Your task to perform on an android device: turn on location history Image 0: 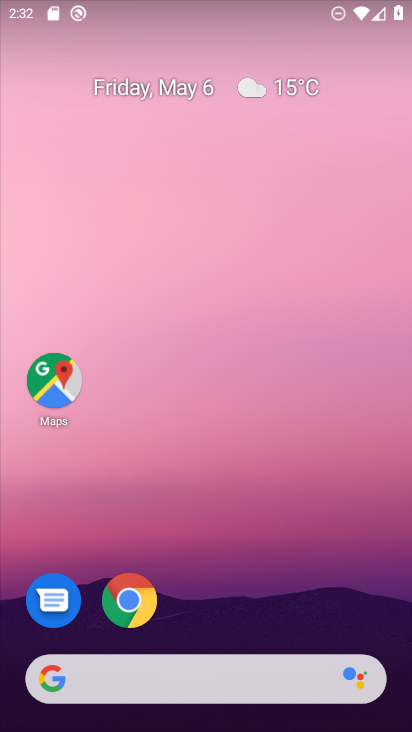
Step 0: drag from (328, 600) to (265, 40)
Your task to perform on an android device: turn on location history Image 1: 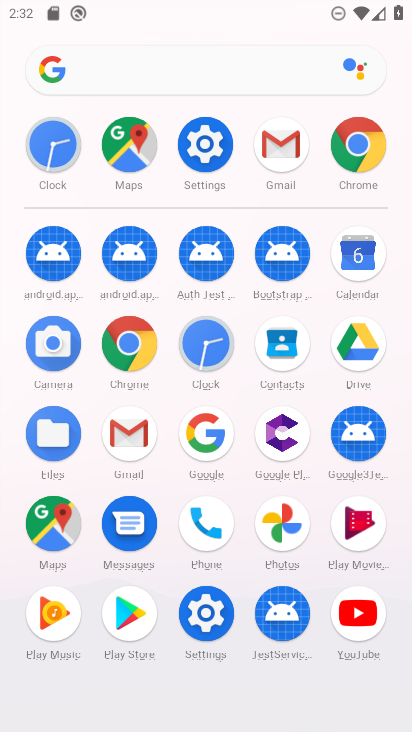
Step 1: click (214, 635)
Your task to perform on an android device: turn on location history Image 2: 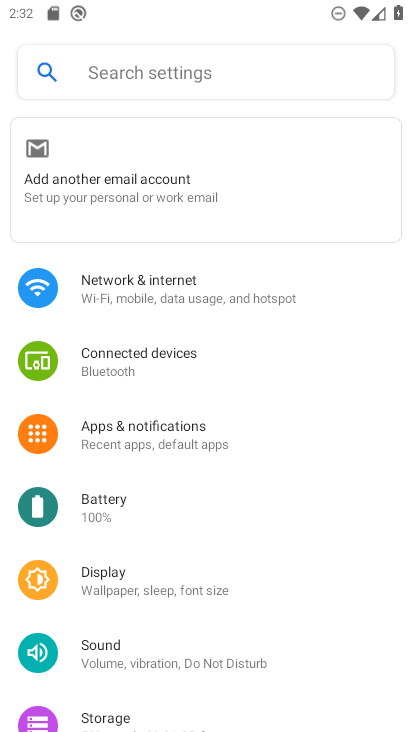
Step 2: drag from (155, 622) to (191, 89)
Your task to perform on an android device: turn on location history Image 3: 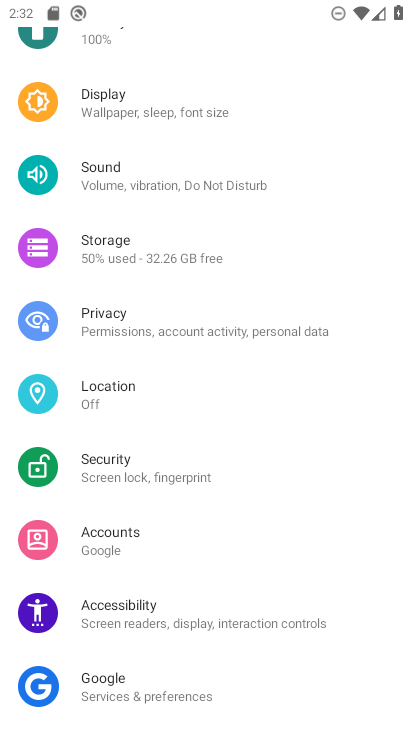
Step 3: click (120, 399)
Your task to perform on an android device: turn on location history Image 4: 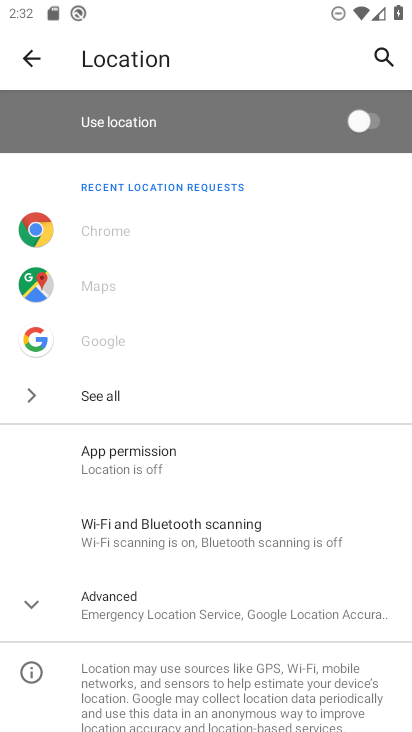
Step 4: click (123, 599)
Your task to perform on an android device: turn on location history Image 5: 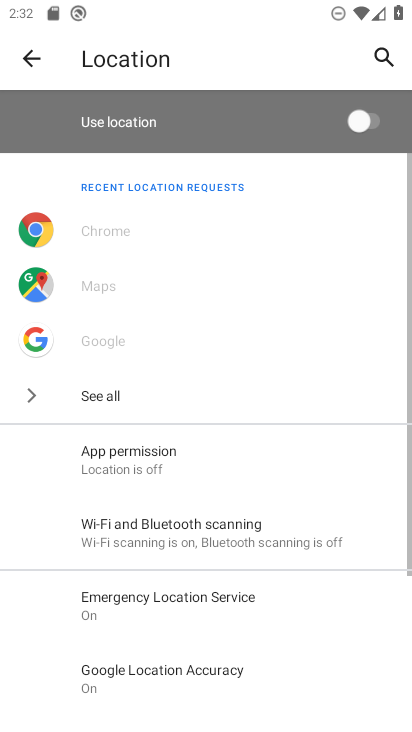
Step 5: drag from (123, 599) to (166, 206)
Your task to perform on an android device: turn on location history Image 6: 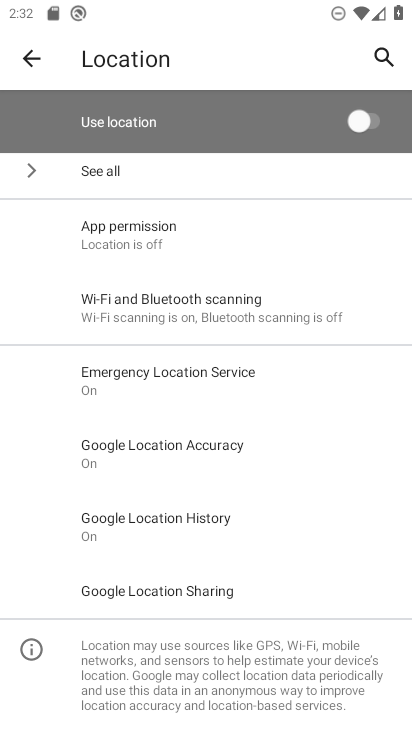
Step 6: click (155, 513)
Your task to perform on an android device: turn on location history Image 7: 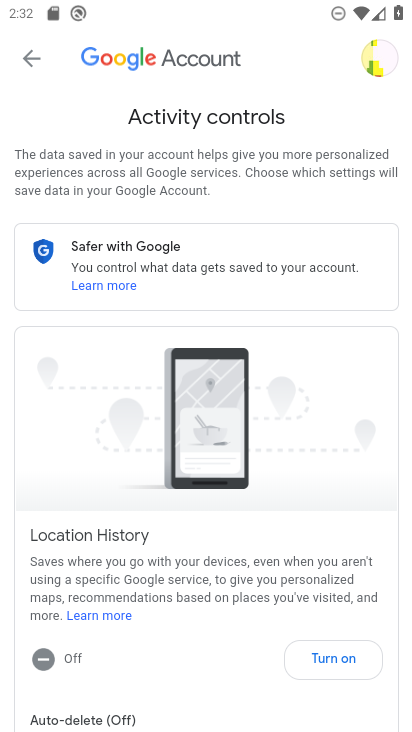
Step 7: task complete